Your task to perform on an android device: Open settings Image 0: 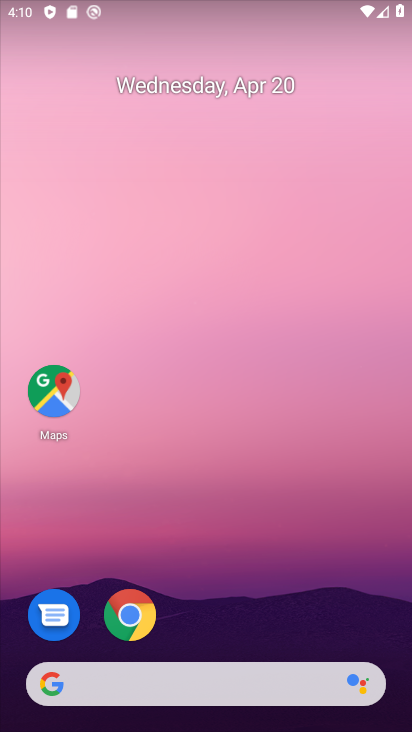
Step 0: drag from (335, 611) to (215, 78)
Your task to perform on an android device: Open settings Image 1: 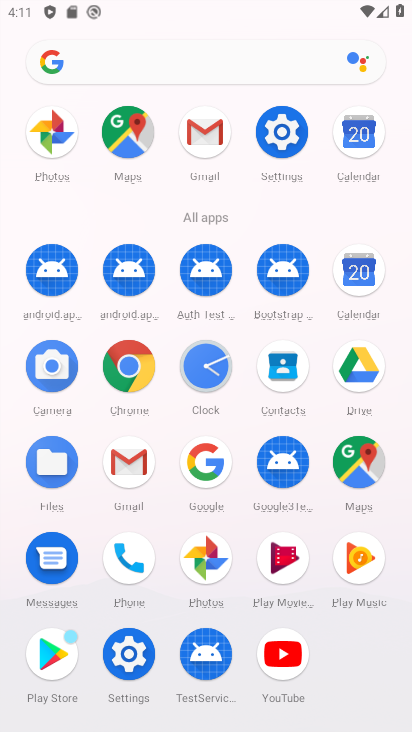
Step 1: click (117, 664)
Your task to perform on an android device: Open settings Image 2: 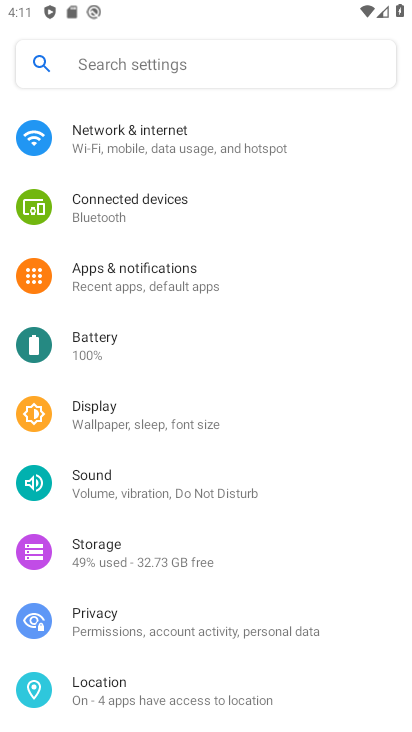
Step 2: task complete